Your task to perform on an android device: visit the assistant section in the google photos Image 0: 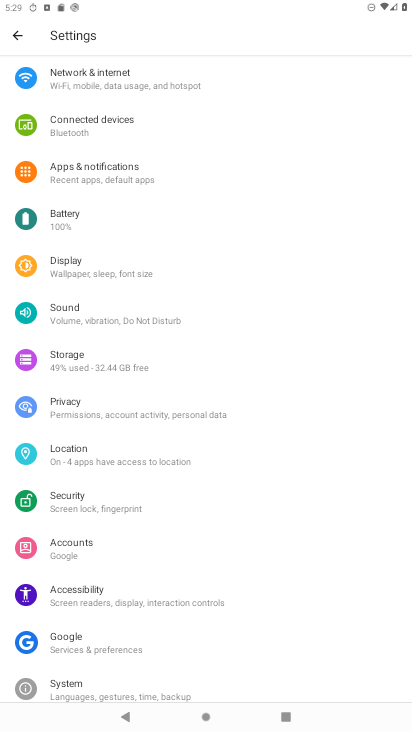
Step 0: press home button
Your task to perform on an android device: visit the assistant section in the google photos Image 1: 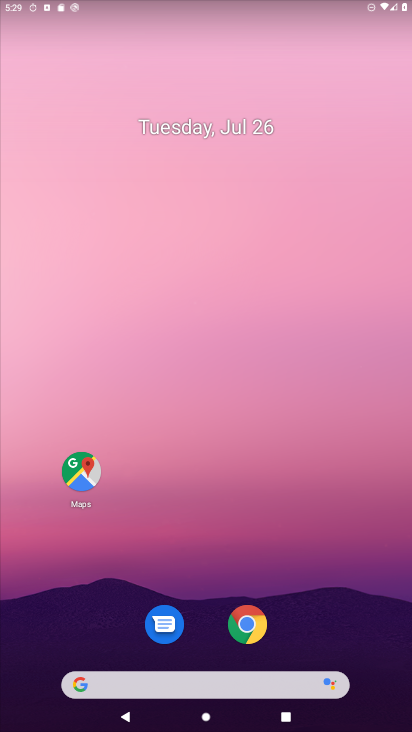
Step 1: drag from (170, 674) to (177, 72)
Your task to perform on an android device: visit the assistant section in the google photos Image 2: 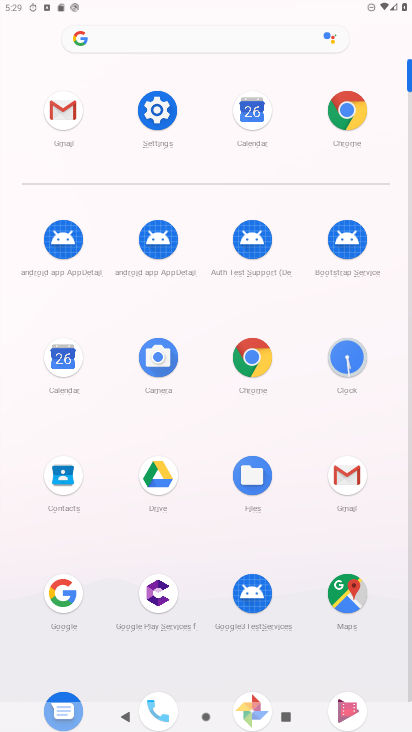
Step 2: drag from (263, 691) to (280, 344)
Your task to perform on an android device: visit the assistant section in the google photos Image 3: 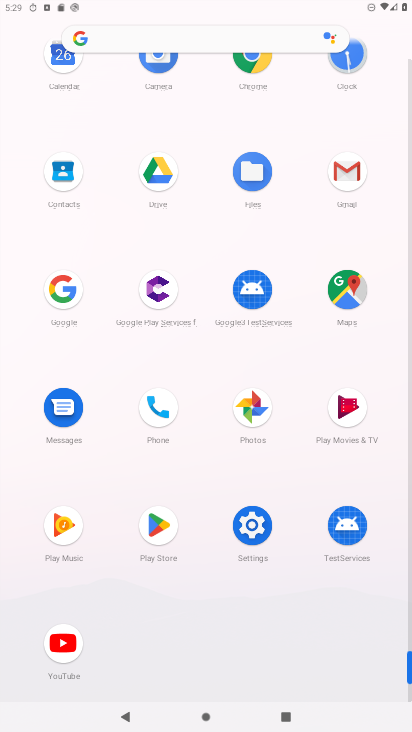
Step 3: click (241, 397)
Your task to perform on an android device: visit the assistant section in the google photos Image 4: 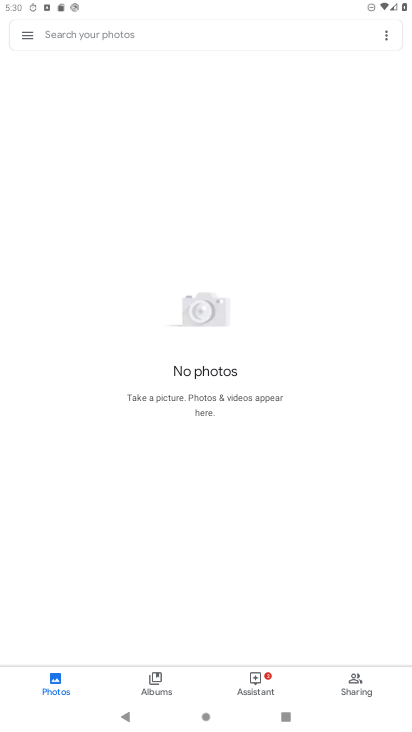
Step 4: click (259, 678)
Your task to perform on an android device: visit the assistant section in the google photos Image 5: 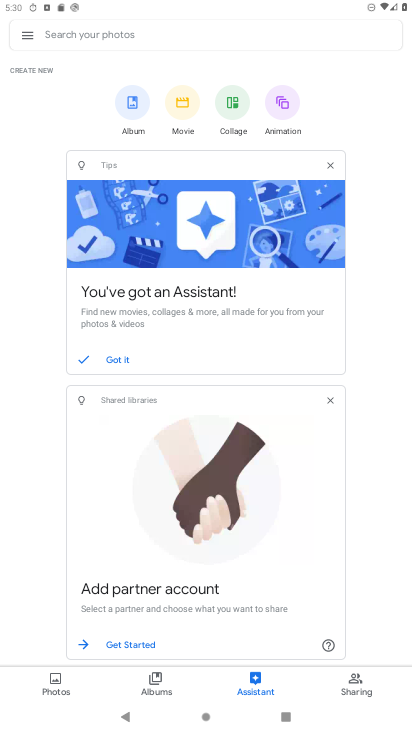
Step 5: task complete